Your task to perform on an android device: Open Chrome and go to settings Image 0: 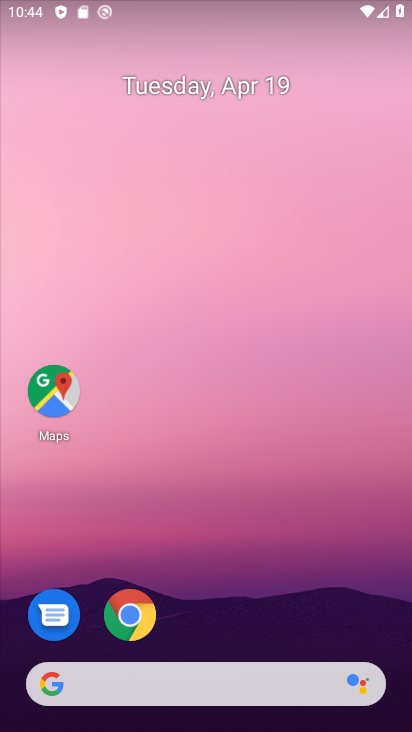
Step 0: click (146, 606)
Your task to perform on an android device: Open Chrome and go to settings Image 1: 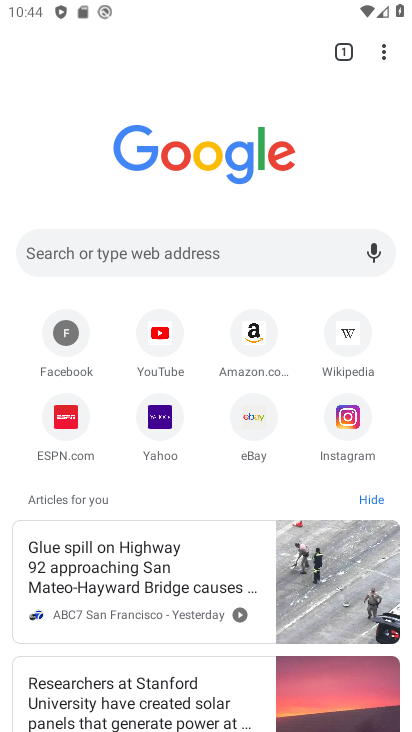
Step 1: task complete